Your task to perform on an android device: Open Amazon Image 0: 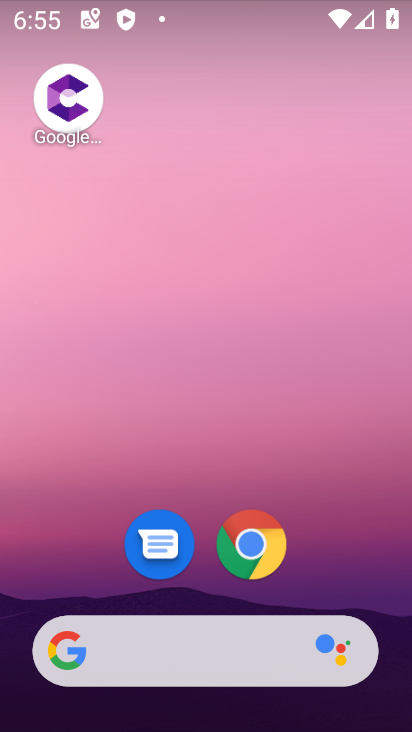
Step 0: click (266, 537)
Your task to perform on an android device: Open Amazon Image 1: 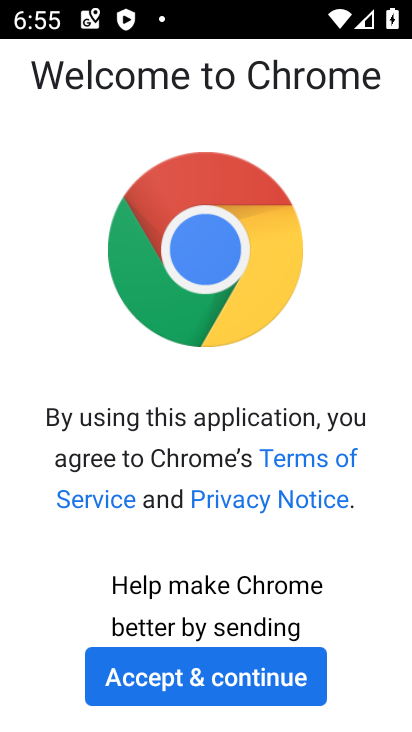
Step 1: click (215, 665)
Your task to perform on an android device: Open Amazon Image 2: 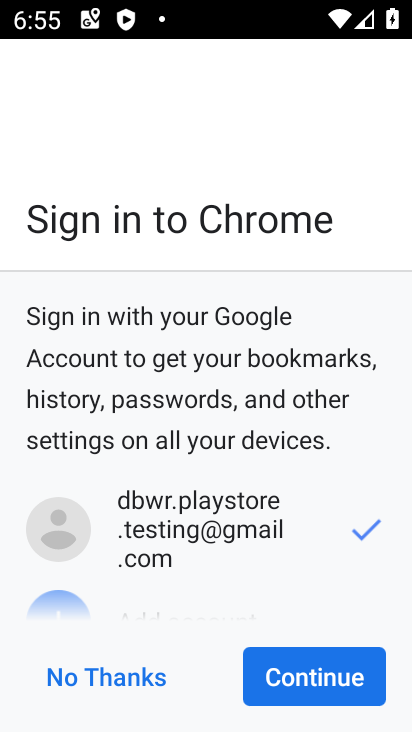
Step 2: click (309, 680)
Your task to perform on an android device: Open Amazon Image 3: 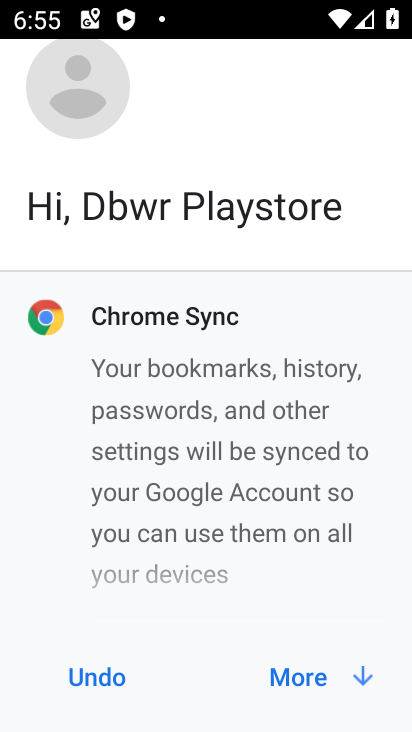
Step 3: click (309, 680)
Your task to perform on an android device: Open Amazon Image 4: 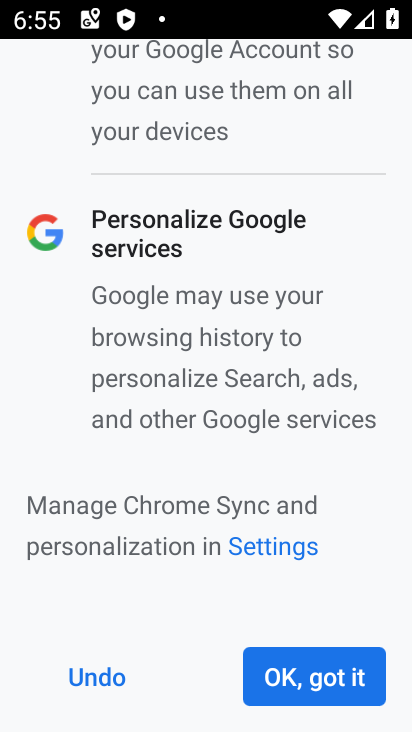
Step 4: click (315, 678)
Your task to perform on an android device: Open Amazon Image 5: 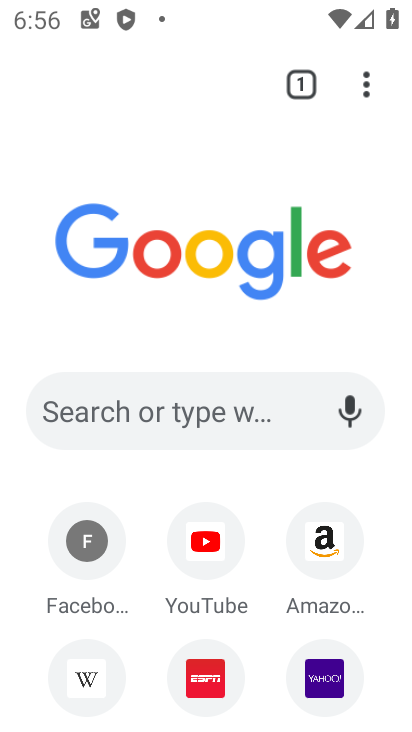
Step 5: click (325, 545)
Your task to perform on an android device: Open Amazon Image 6: 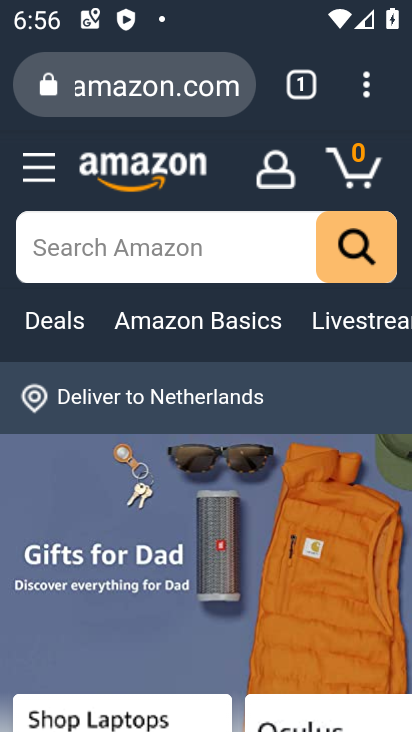
Step 6: task complete